Your task to perform on an android device: What's on my calendar tomorrow? Image 0: 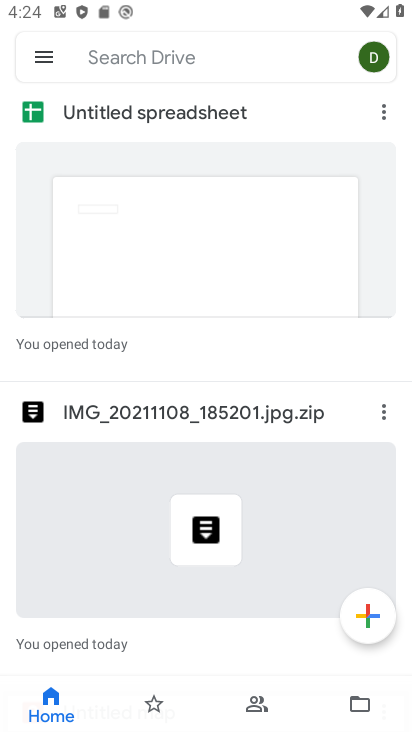
Step 0: press home button
Your task to perform on an android device: What's on my calendar tomorrow? Image 1: 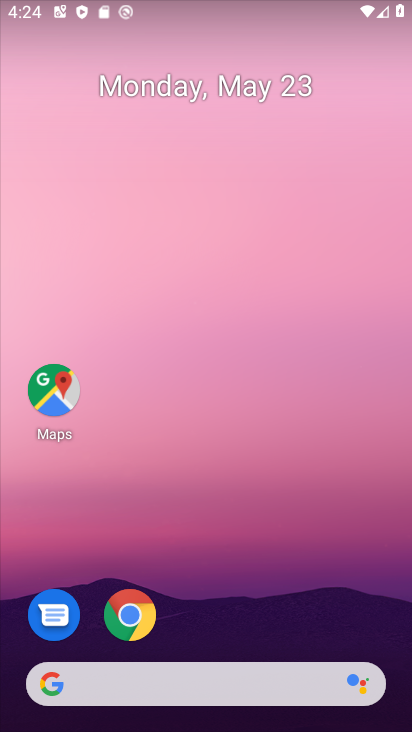
Step 1: drag from (288, 583) to (357, 9)
Your task to perform on an android device: What's on my calendar tomorrow? Image 2: 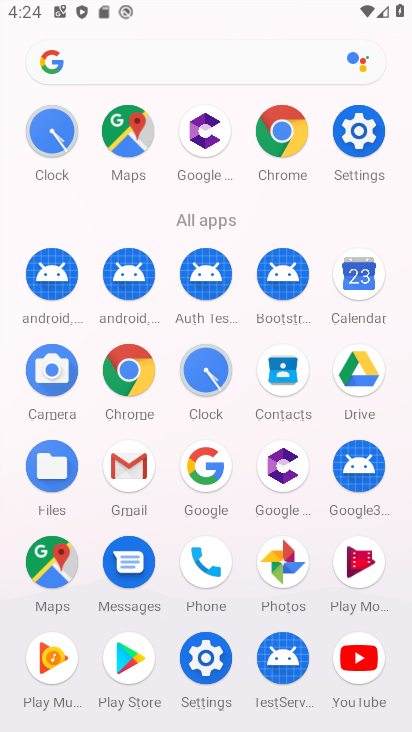
Step 2: click (372, 284)
Your task to perform on an android device: What's on my calendar tomorrow? Image 3: 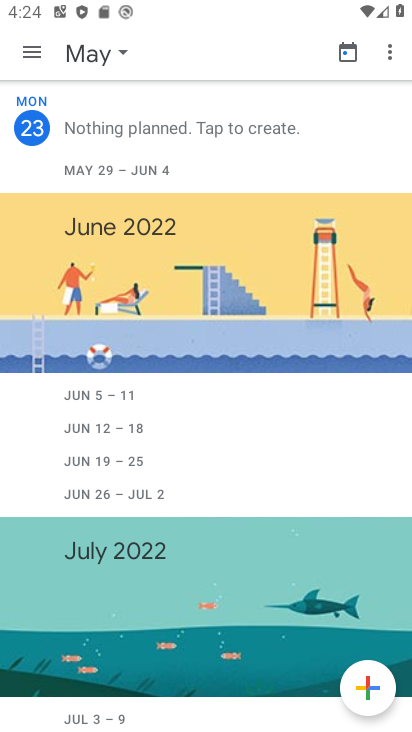
Step 3: click (125, 51)
Your task to perform on an android device: What's on my calendar tomorrow? Image 4: 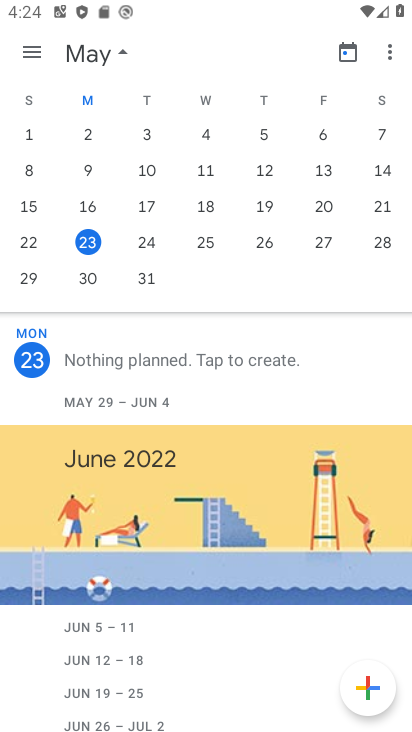
Step 4: click (150, 243)
Your task to perform on an android device: What's on my calendar tomorrow? Image 5: 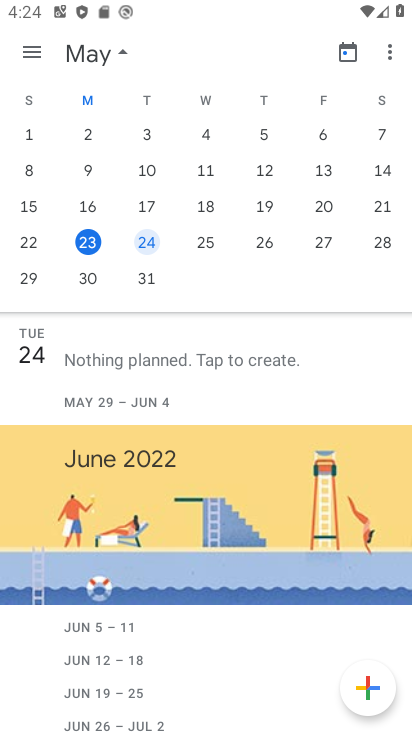
Step 5: task complete